Your task to perform on an android device: open app "NewsBreak: Local News & Alerts" (install if not already installed) Image 0: 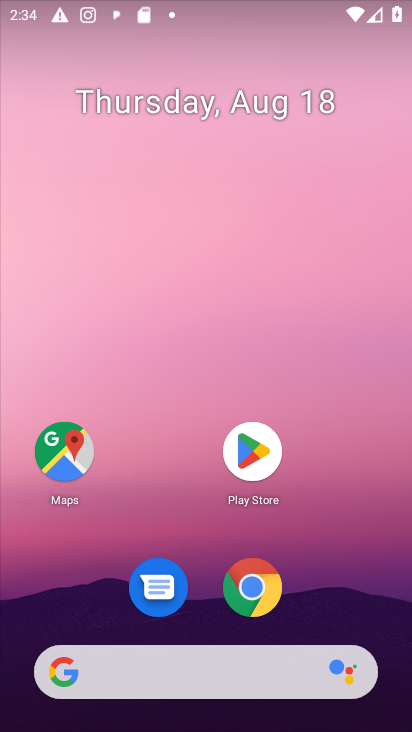
Step 0: press home button
Your task to perform on an android device: open app "NewsBreak: Local News & Alerts" (install if not already installed) Image 1: 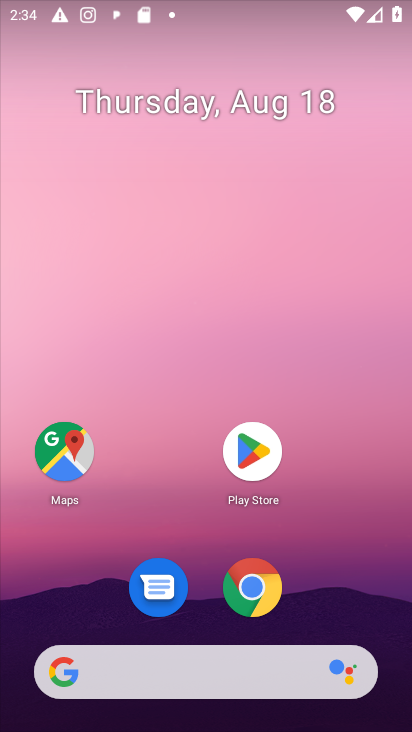
Step 1: click (244, 458)
Your task to perform on an android device: open app "NewsBreak: Local News & Alerts" (install if not already installed) Image 2: 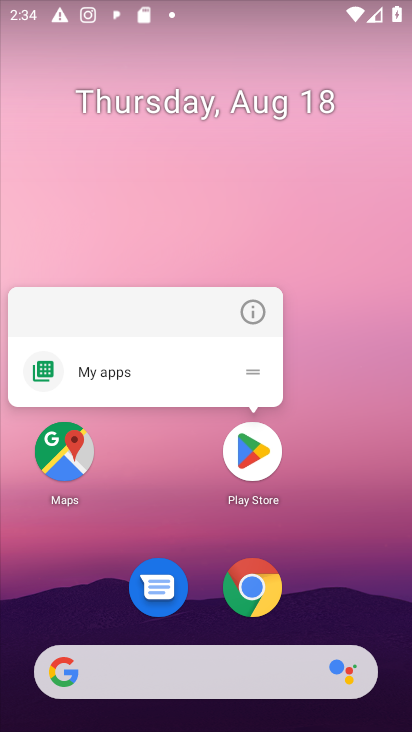
Step 2: click (244, 458)
Your task to perform on an android device: open app "NewsBreak: Local News & Alerts" (install if not already installed) Image 3: 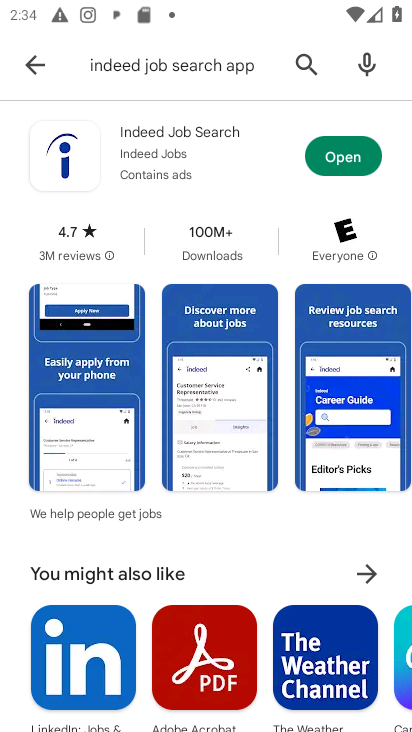
Step 3: click (303, 68)
Your task to perform on an android device: open app "NewsBreak: Local News & Alerts" (install if not already installed) Image 4: 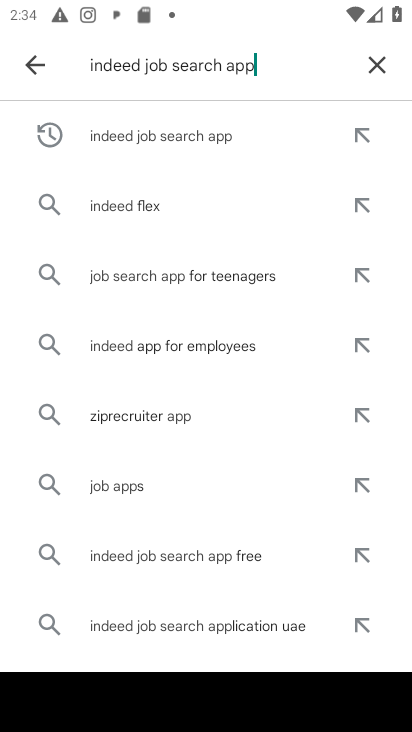
Step 4: click (376, 65)
Your task to perform on an android device: open app "NewsBreak: Local News & Alerts" (install if not already installed) Image 5: 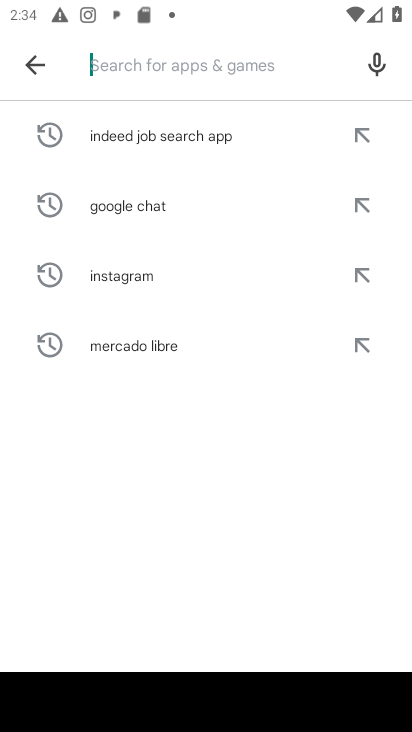
Step 5: type "NewsBreak: Local News & Alerts"
Your task to perform on an android device: open app "NewsBreak: Local News & Alerts" (install if not already installed) Image 6: 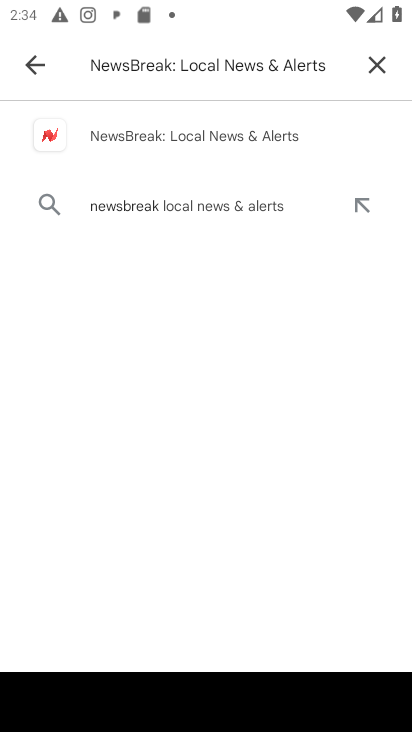
Step 6: click (208, 140)
Your task to perform on an android device: open app "NewsBreak: Local News & Alerts" (install if not already installed) Image 7: 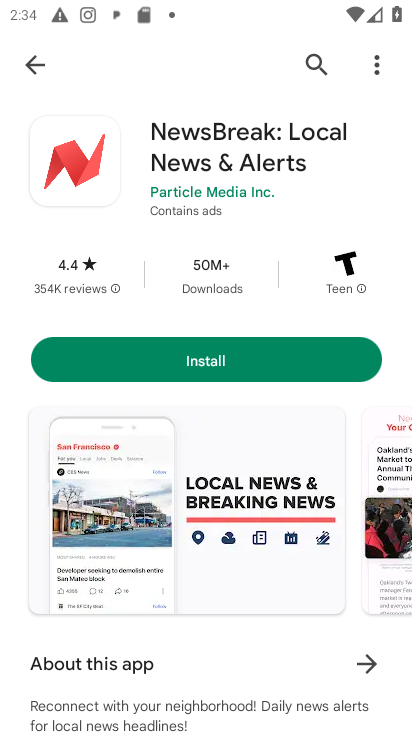
Step 7: click (192, 358)
Your task to perform on an android device: open app "NewsBreak: Local News & Alerts" (install if not already installed) Image 8: 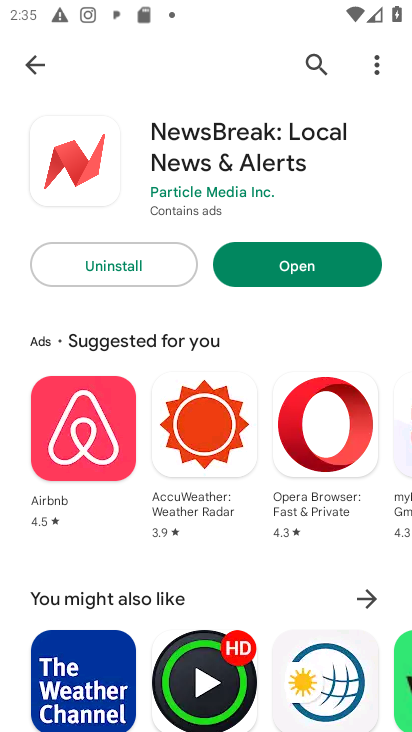
Step 8: click (337, 268)
Your task to perform on an android device: open app "NewsBreak: Local News & Alerts" (install if not already installed) Image 9: 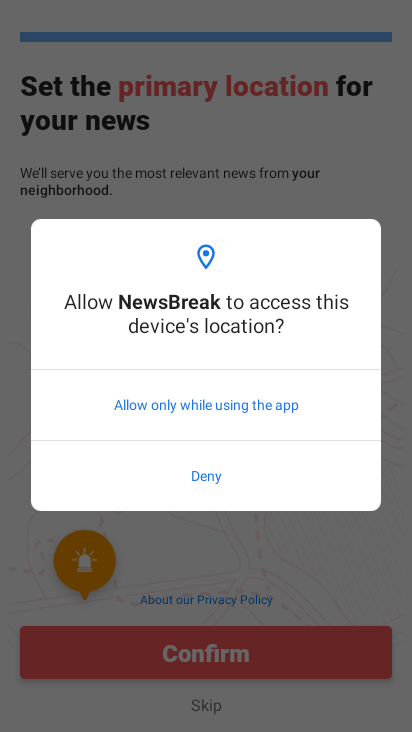
Step 9: task complete